Your task to perform on an android device: uninstall "Spotify: Music and Podcasts" Image 0: 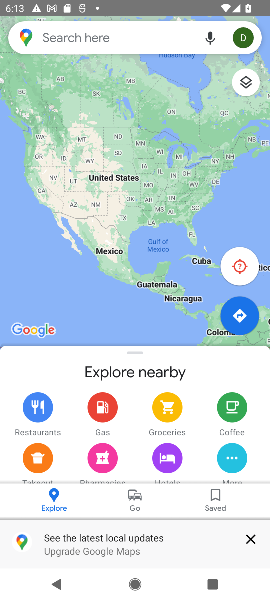
Step 0: press home button
Your task to perform on an android device: uninstall "Spotify: Music and Podcasts" Image 1: 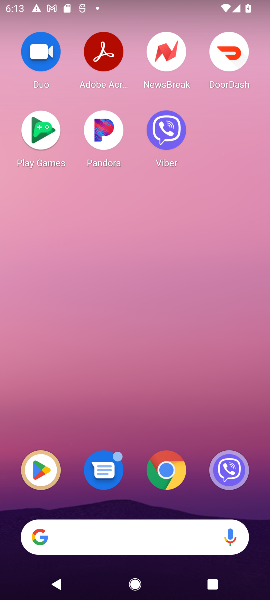
Step 1: drag from (188, 414) to (184, 35)
Your task to perform on an android device: uninstall "Spotify: Music and Podcasts" Image 2: 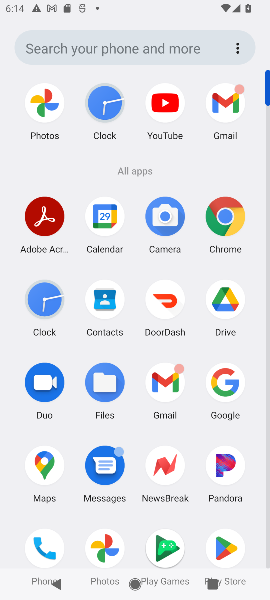
Step 2: click (223, 541)
Your task to perform on an android device: uninstall "Spotify: Music and Podcasts" Image 3: 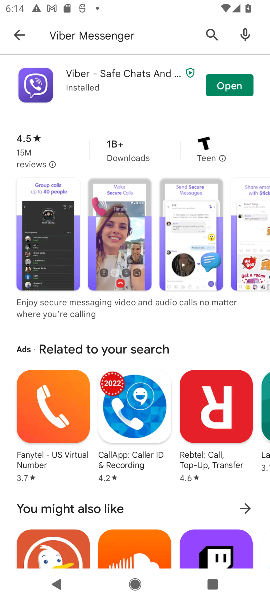
Step 3: click (166, 41)
Your task to perform on an android device: uninstall "Spotify: Music and Podcasts" Image 4: 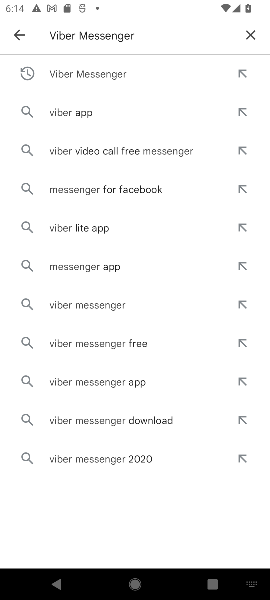
Step 4: click (249, 34)
Your task to perform on an android device: uninstall "Spotify: Music and Podcasts" Image 5: 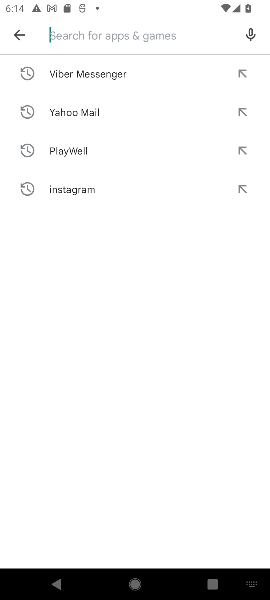
Step 5: type "Spotify: Music and Podcasts"
Your task to perform on an android device: uninstall "Spotify: Music and Podcasts" Image 6: 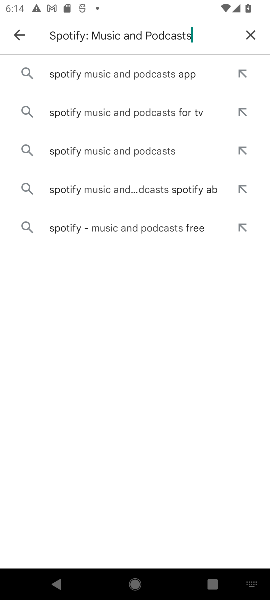
Step 6: press enter
Your task to perform on an android device: uninstall "Spotify: Music and Podcasts" Image 7: 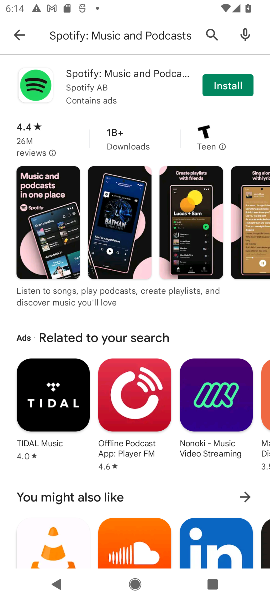
Step 7: task complete